Your task to perform on an android device: create a new album in the google photos Image 0: 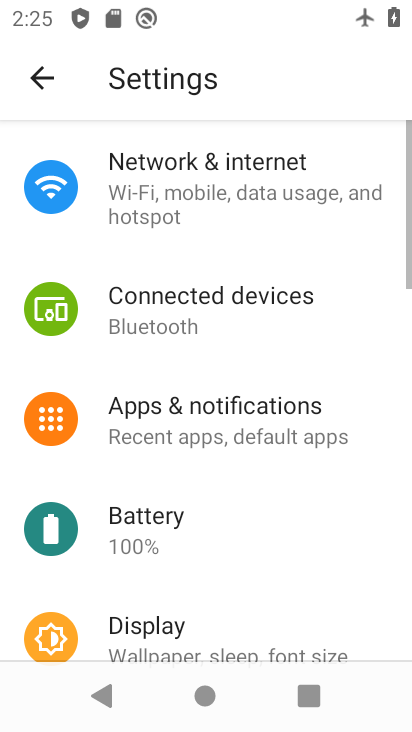
Step 0: click (51, 76)
Your task to perform on an android device: create a new album in the google photos Image 1: 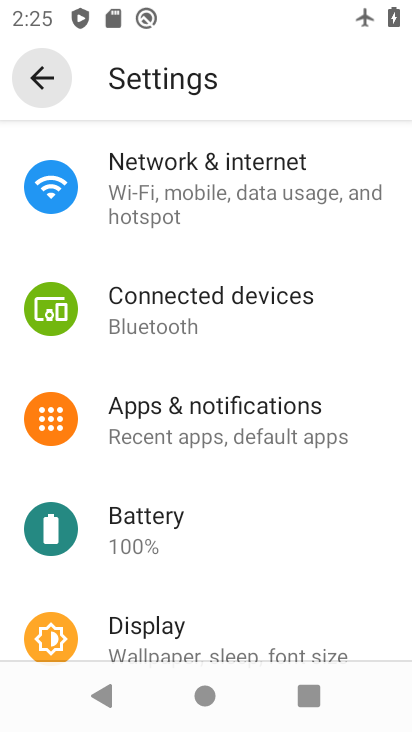
Step 1: click (51, 76)
Your task to perform on an android device: create a new album in the google photos Image 2: 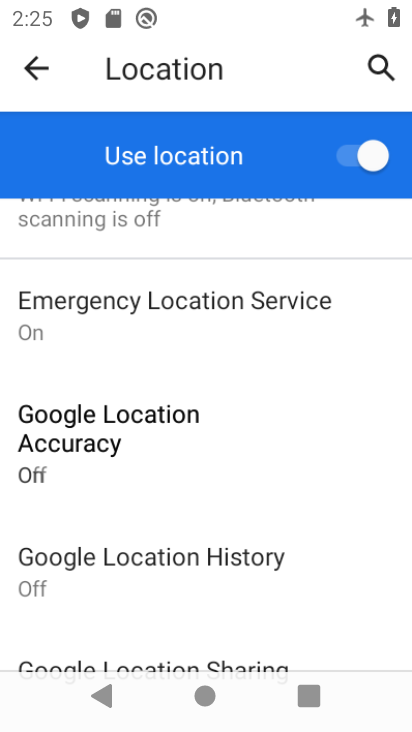
Step 2: click (52, 75)
Your task to perform on an android device: create a new album in the google photos Image 3: 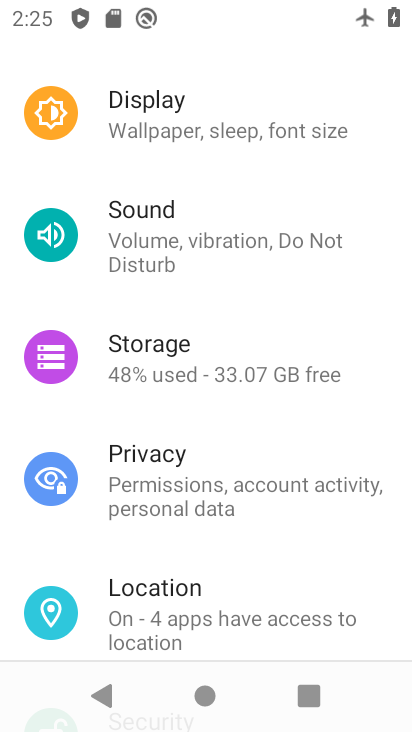
Step 3: press back button
Your task to perform on an android device: create a new album in the google photos Image 4: 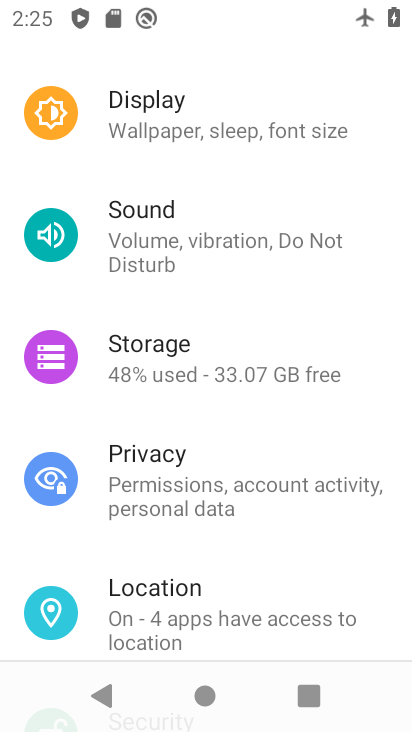
Step 4: press back button
Your task to perform on an android device: create a new album in the google photos Image 5: 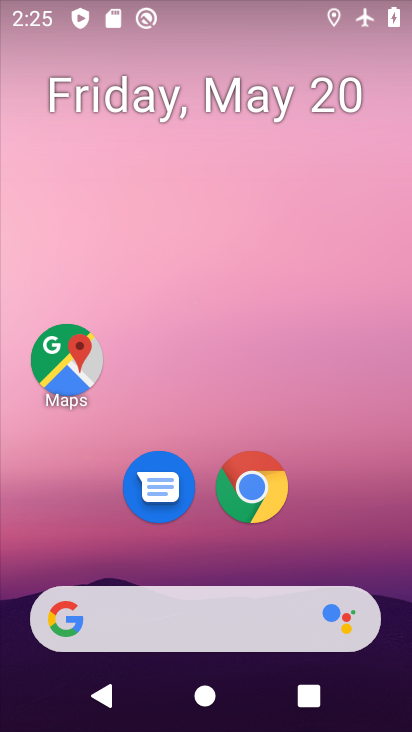
Step 5: drag from (356, 581) to (256, 55)
Your task to perform on an android device: create a new album in the google photos Image 6: 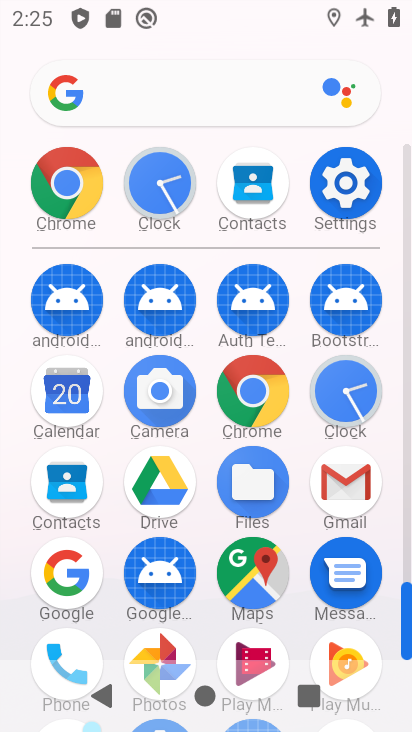
Step 6: click (338, 204)
Your task to perform on an android device: create a new album in the google photos Image 7: 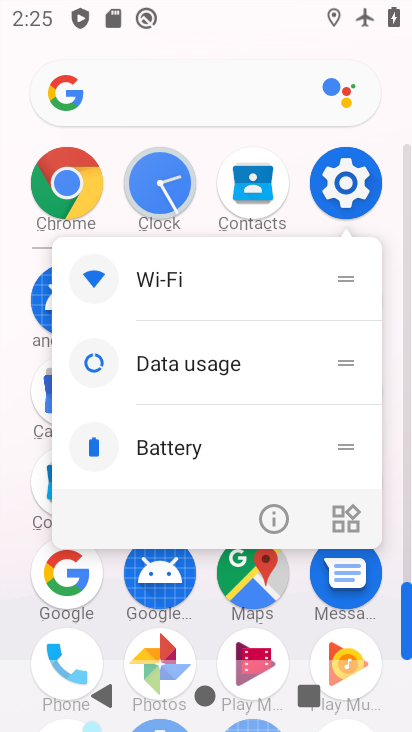
Step 7: click (305, 143)
Your task to perform on an android device: create a new album in the google photos Image 8: 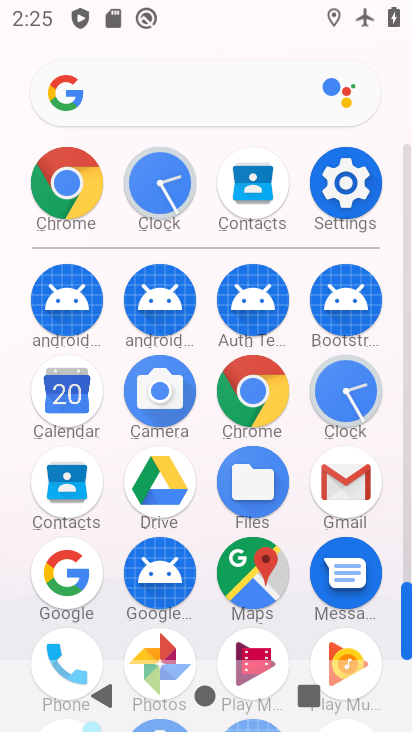
Step 8: click (356, 180)
Your task to perform on an android device: create a new album in the google photos Image 9: 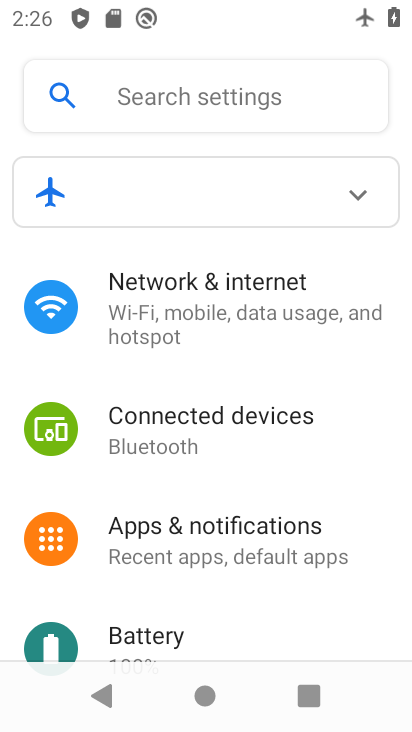
Step 9: drag from (212, 537) to (163, 201)
Your task to perform on an android device: create a new album in the google photos Image 10: 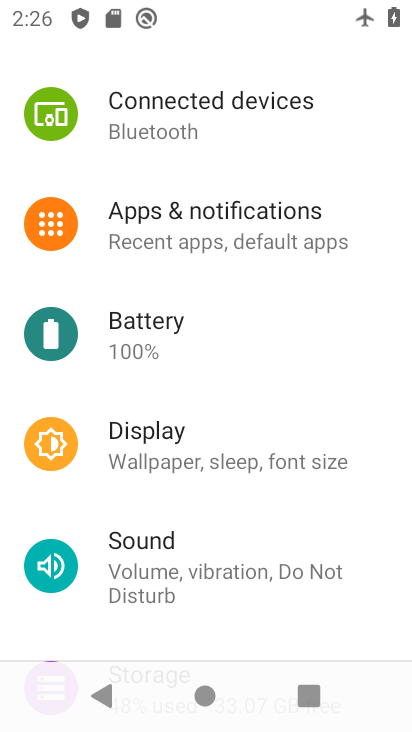
Step 10: drag from (191, 454) to (148, 183)
Your task to perform on an android device: create a new album in the google photos Image 11: 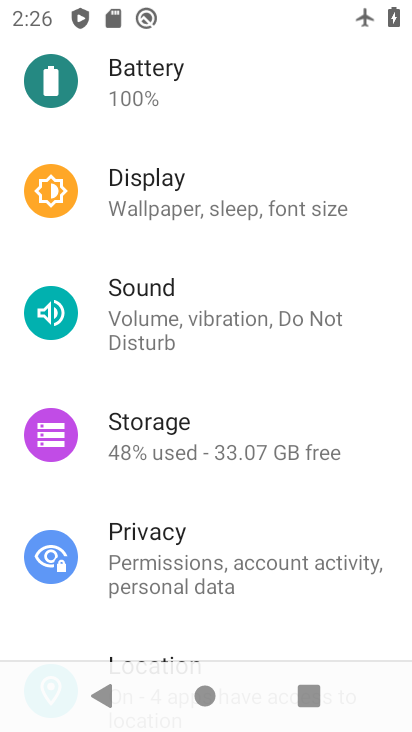
Step 11: drag from (176, 443) to (118, 108)
Your task to perform on an android device: create a new album in the google photos Image 12: 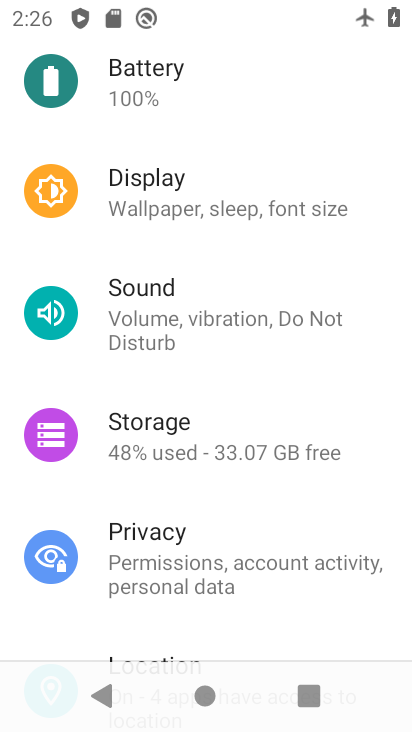
Step 12: drag from (161, 371) to (142, 69)
Your task to perform on an android device: create a new album in the google photos Image 13: 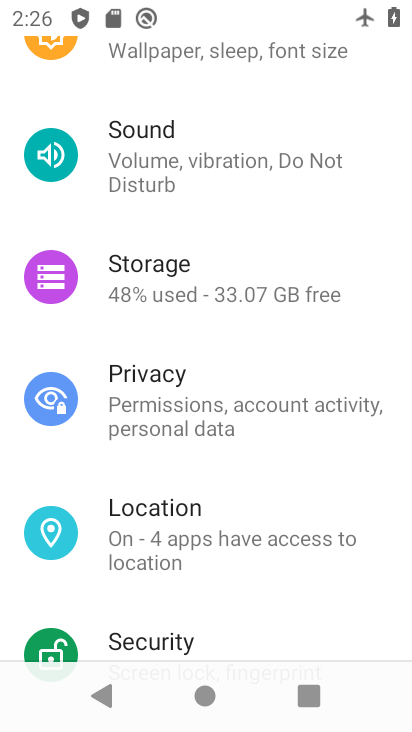
Step 13: drag from (225, 426) to (210, 69)
Your task to perform on an android device: create a new album in the google photos Image 14: 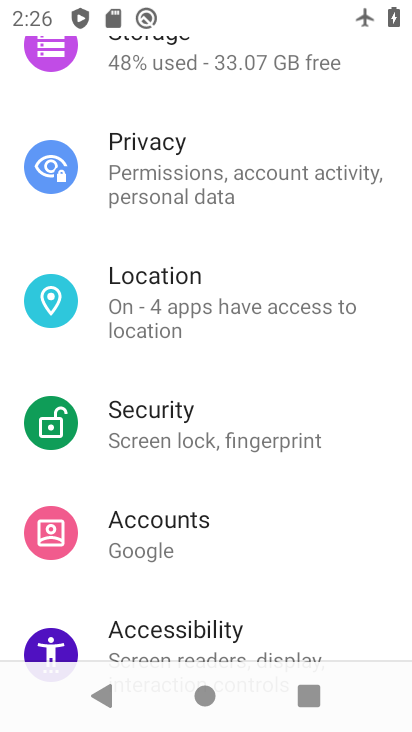
Step 14: drag from (186, 10) to (156, 110)
Your task to perform on an android device: create a new album in the google photos Image 15: 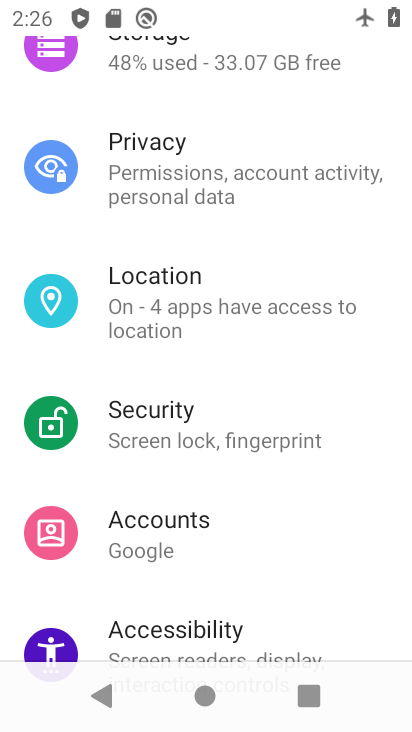
Step 15: drag from (199, 224) to (270, 642)
Your task to perform on an android device: create a new album in the google photos Image 16: 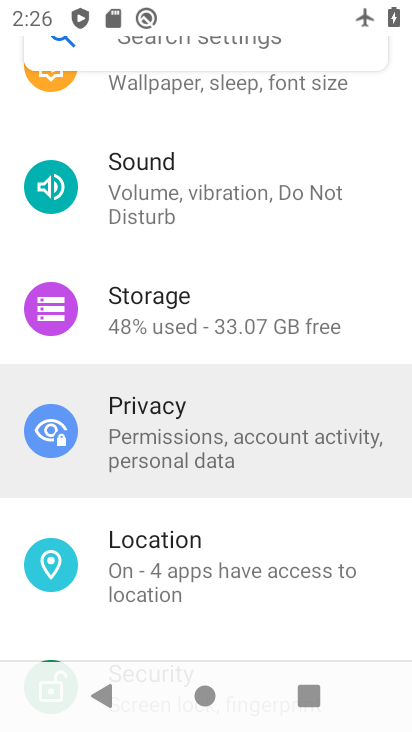
Step 16: drag from (179, 277) to (227, 553)
Your task to perform on an android device: create a new album in the google photos Image 17: 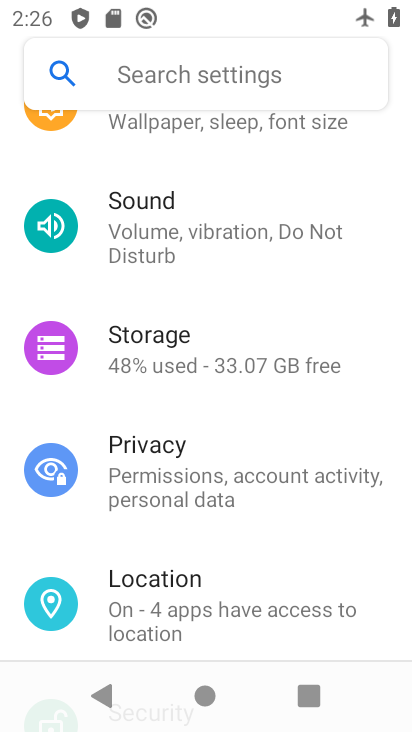
Step 17: drag from (174, 241) to (231, 549)
Your task to perform on an android device: create a new album in the google photos Image 18: 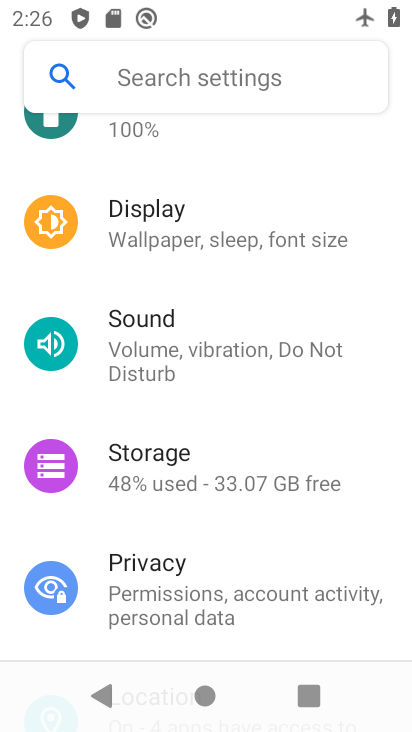
Step 18: drag from (187, 532) to (193, 628)
Your task to perform on an android device: create a new album in the google photos Image 19: 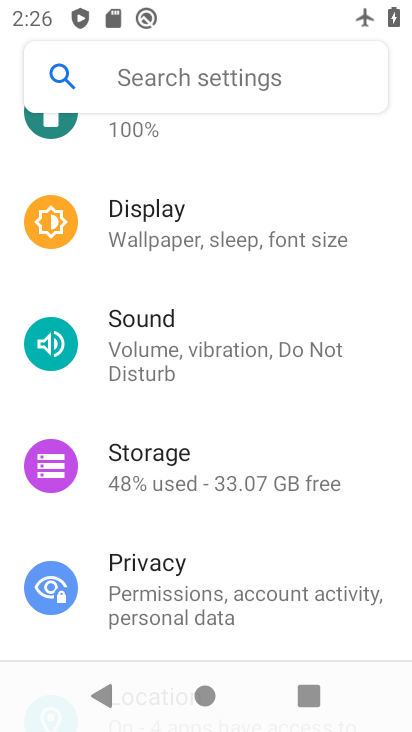
Step 19: drag from (143, 232) to (209, 558)
Your task to perform on an android device: create a new album in the google photos Image 20: 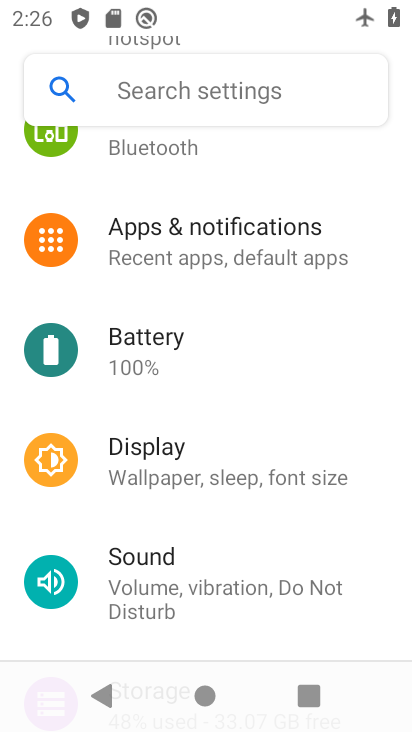
Step 20: drag from (225, 630) to (218, 713)
Your task to perform on an android device: create a new album in the google photos Image 21: 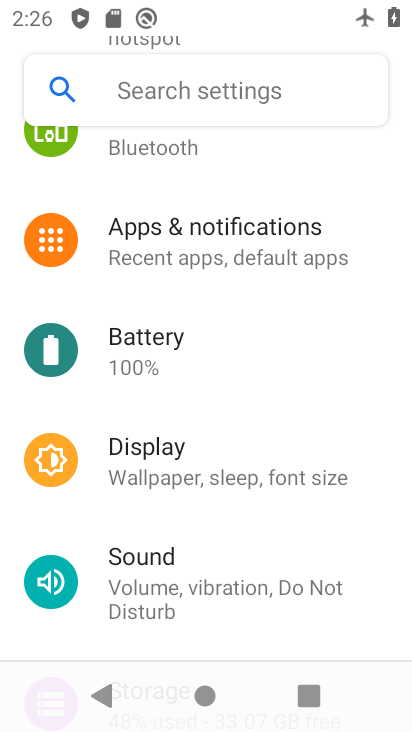
Step 21: drag from (167, 255) to (212, 603)
Your task to perform on an android device: create a new album in the google photos Image 22: 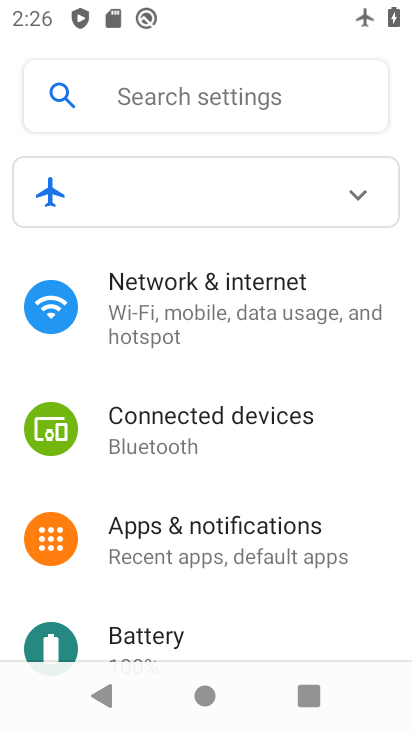
Step 22: drag from (130, 172) to (120, 694)
Your task to perform on an android device: create a new album in the google photos Image 23: 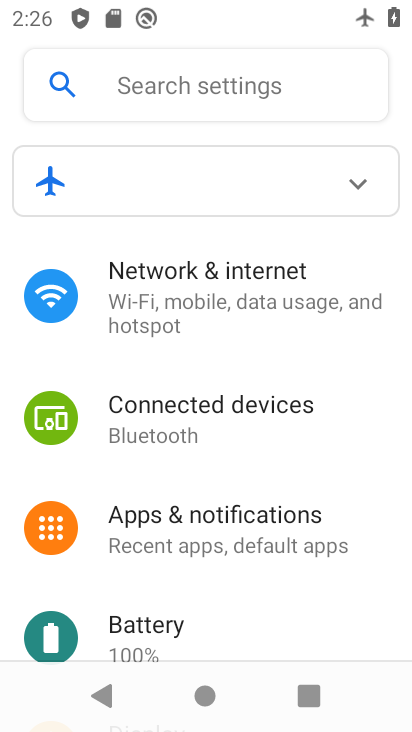
Step 23: drag from (200, 517) to (259, 2)
Your task to perform on an android device: create a new album in the google photos Image 24: 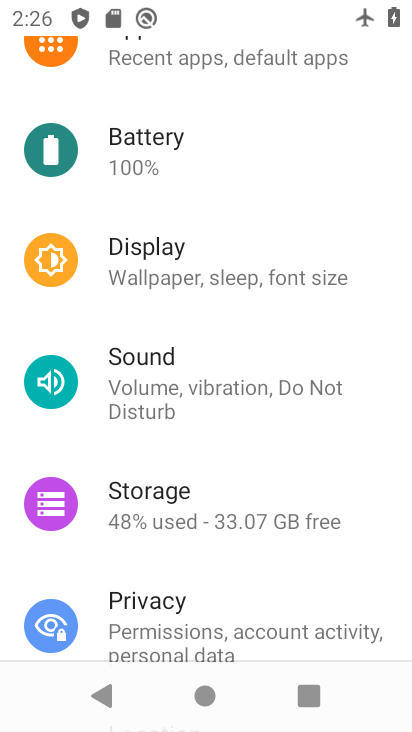
Step 24: drag from (199, 472) to (179, 53)
Your task to perform on an android device: create a new album in the google photos Image 25: 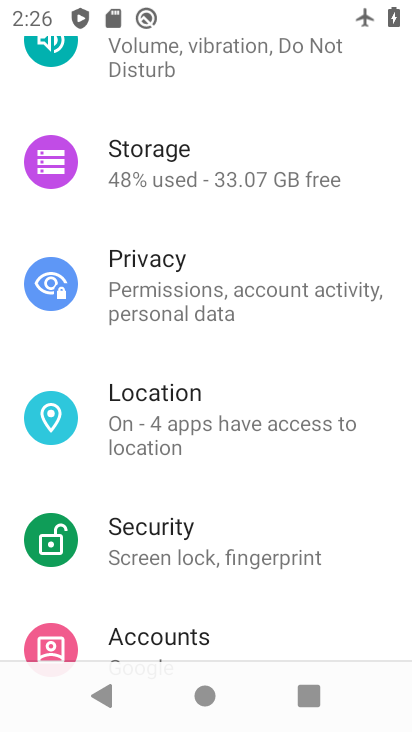
Step 25: drag from (206, 387) to (191, 58)
Your task to perform on an android device: create a new album in the google photos Image 26: 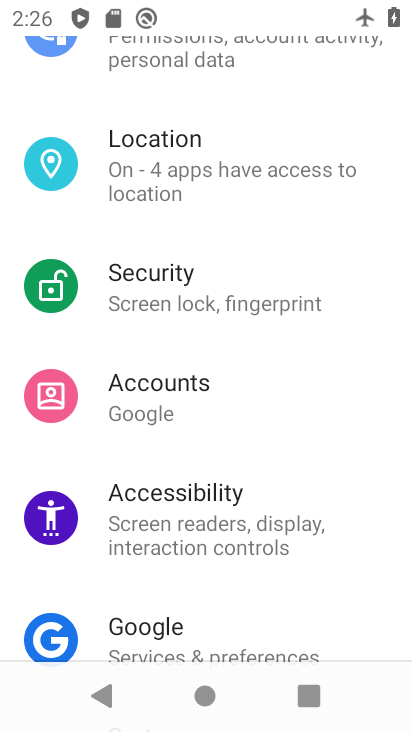
Step 26: drag from (213, 369) to (147, 1)
Your task to perform on an android device: create a new album in the google photos Image 27: 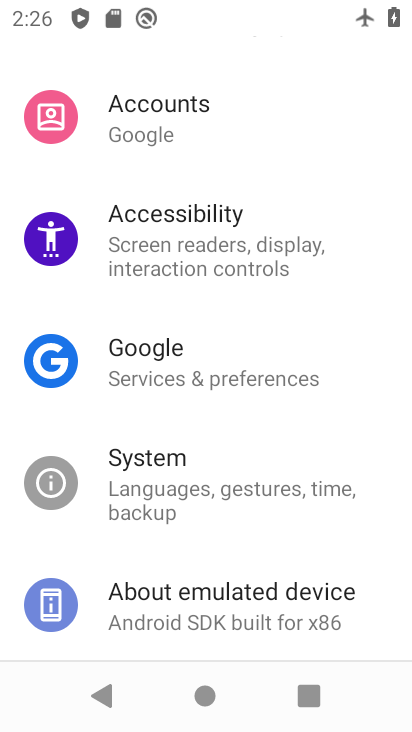
Step 27: press home button
Your task to perform on an android device: create a new album in the google photos Image 28: 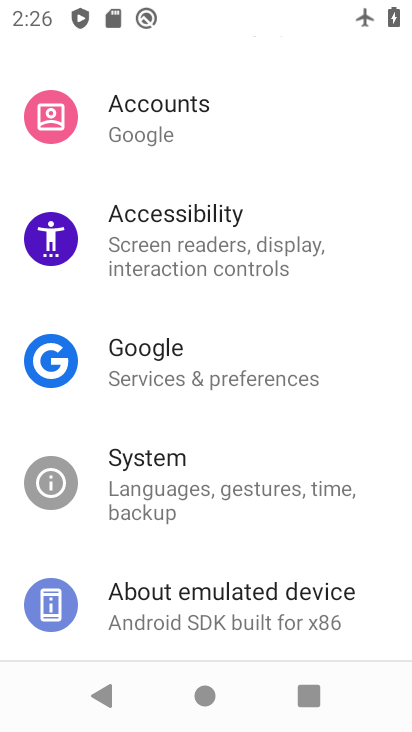
Step 28: press home button
Your task to perform on an android device: create a new album in the google photos Image 29: 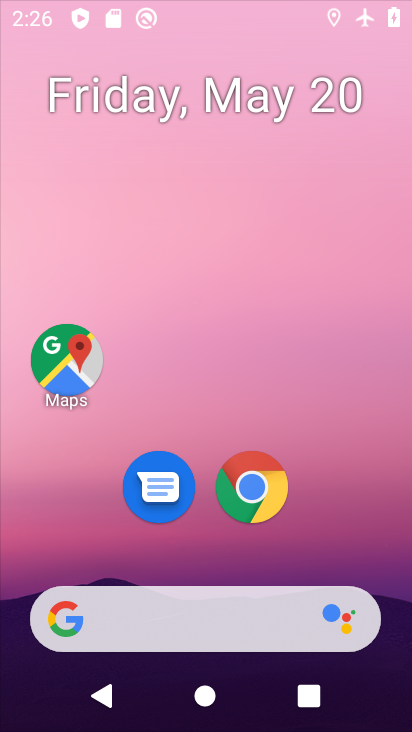
Step 29: press home button
Your task to perform on an android device: create a new album in the google photos Image 30: 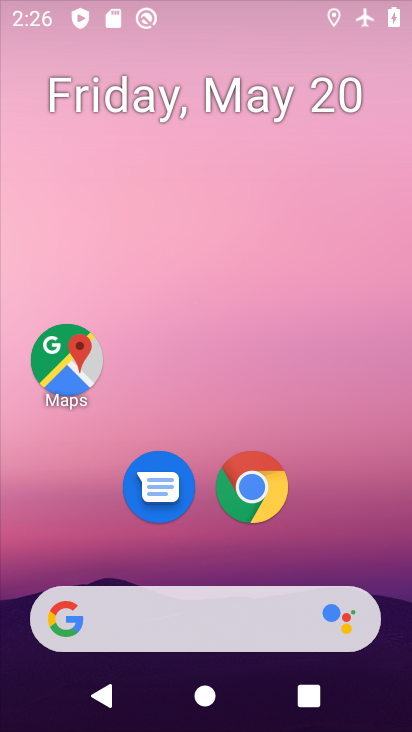
Step 30: press home button
Your task to perform on an android device: create a new album in the google photos Image 31: 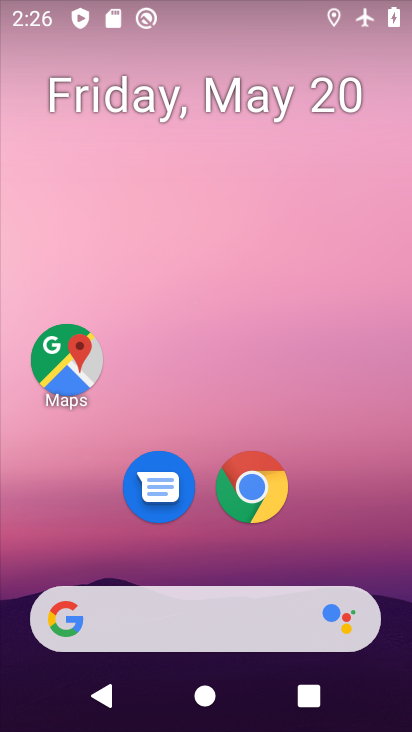
Step 31: drag from (246, 310) to (183, 0)
Your task to perform on an android device: create a new album in the google photos Image 32: 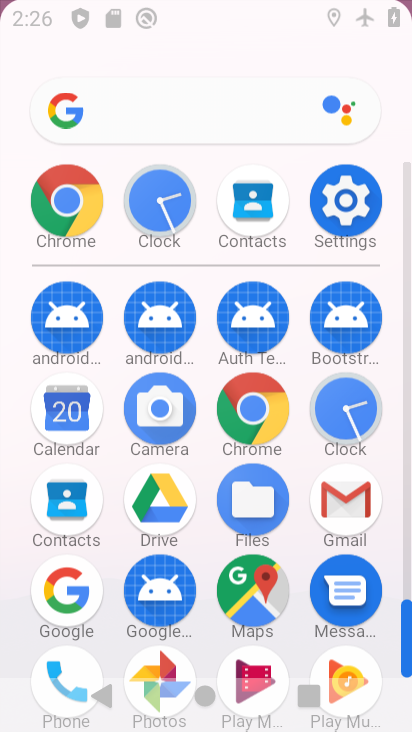
Step 32: drag from (237, 522) to (142, 3)
Your task to perform on an android device: create a new album in the google photos Image 33: 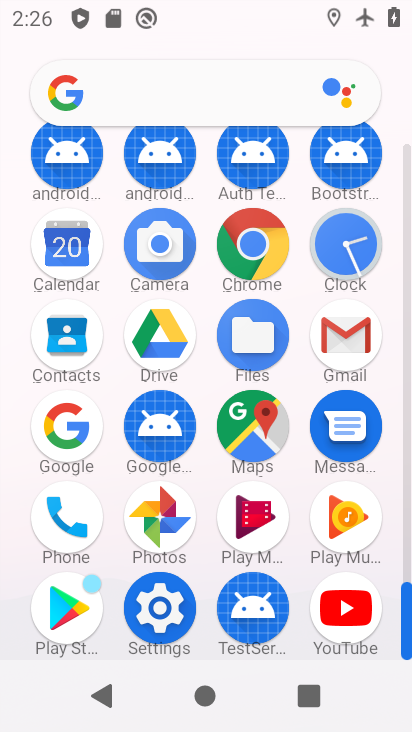
Step 33: click (164, 504)
Your task to perform on an android device: create a new album in the google photos Image 34: 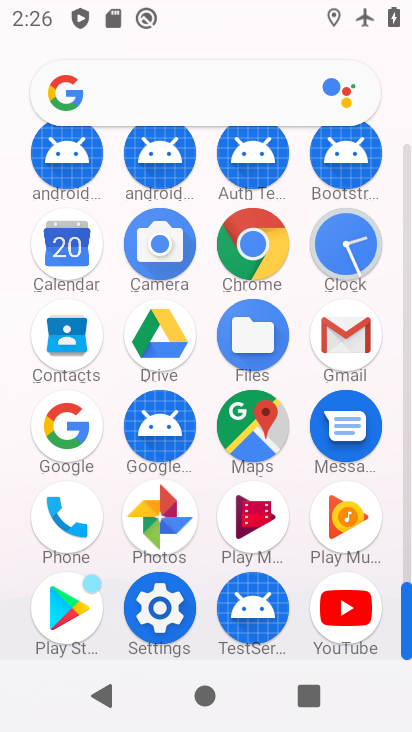
Step 34: click (166, 505)
Your task to perform on an android device: create a new album in the google photos Image 35: 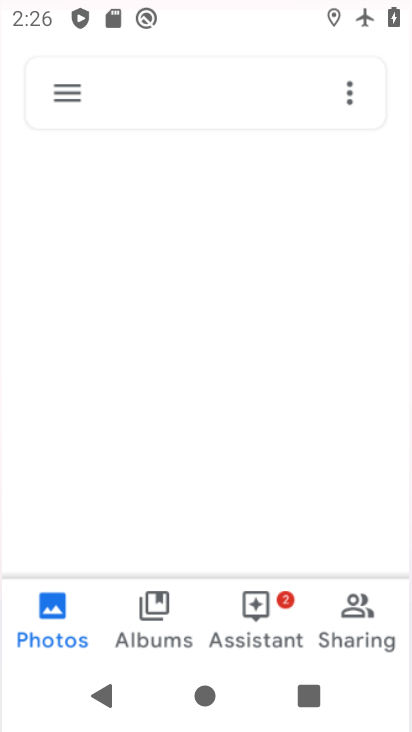
Step 35: click (172, 519)
Your task to perform on an android device: create a new album in the google photos Image 36: 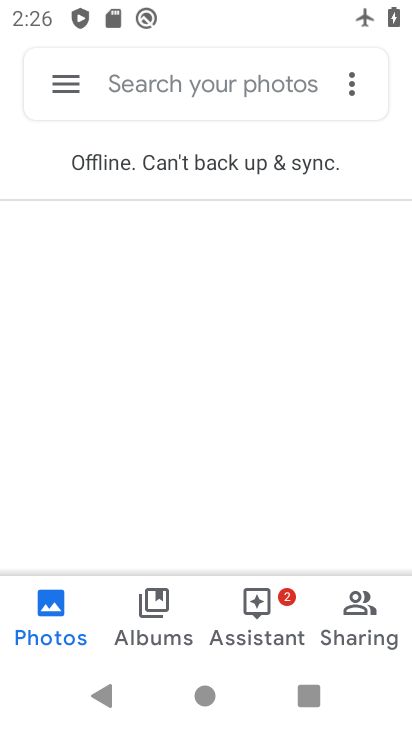
Step 36: task complete